Your task to perform on an android device: Open notification settings Image 0: 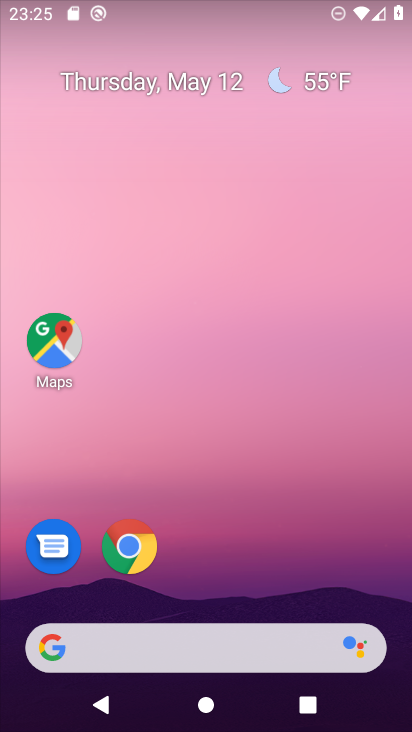
Step 0: drag from (220, 359) to (247, 167)
Your task to perform on an android device: Open notification settings Image 1: 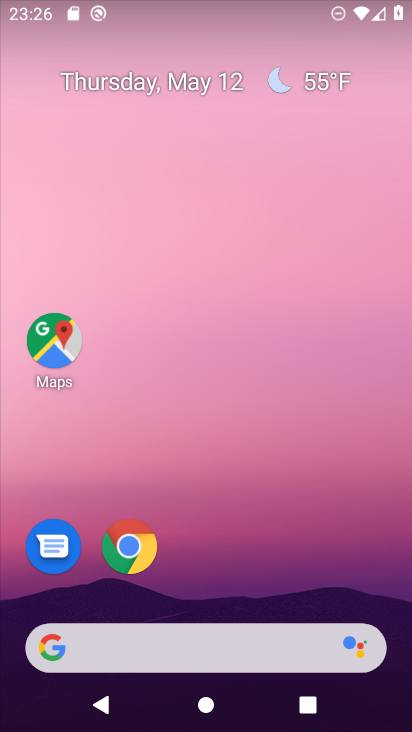
Step 1: drag from (141, 533) to (163, 141)
Your task to perform on an android device: Open notification settings Image 2: 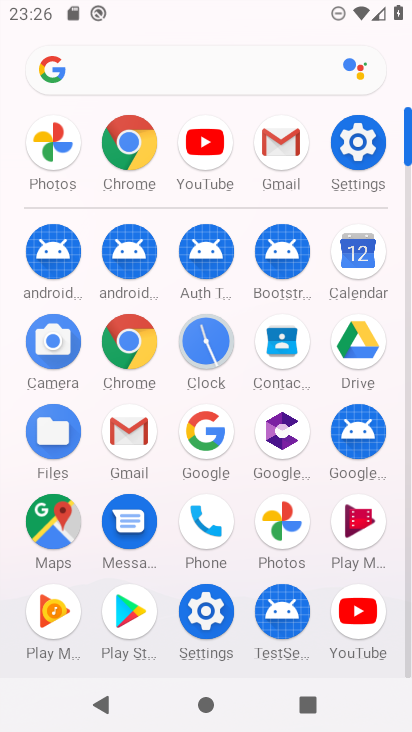
Step 2: click (206, 601)
Your task to perform on an android device: Open notification settings Image 3: 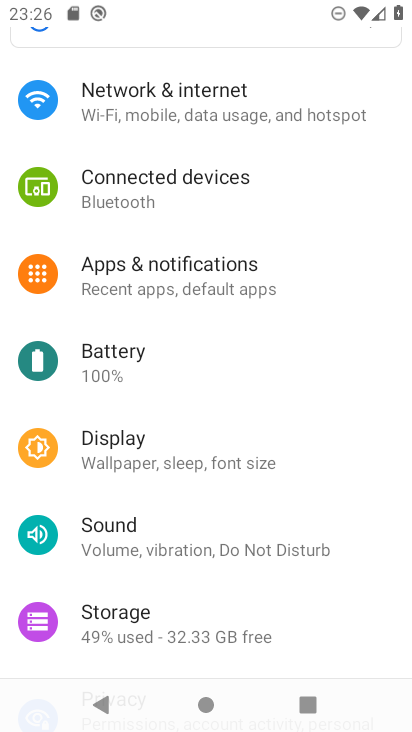
Step 3: click (193, 281)
Your task to perform on an android device: Open notification settings Image 4: 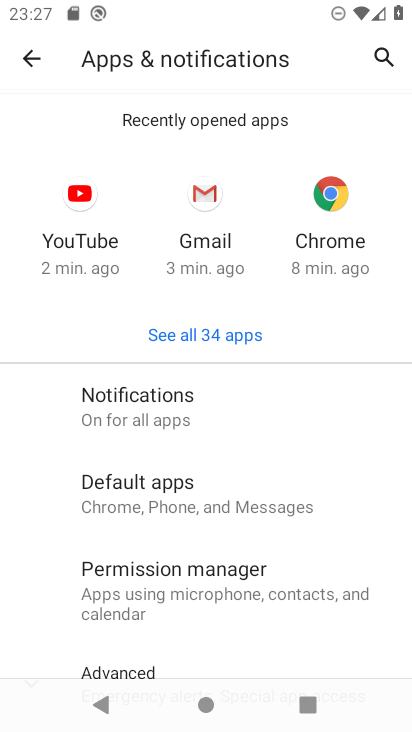
Step 4: task complete